Your task to perform on an android device: check data usage Image 0: 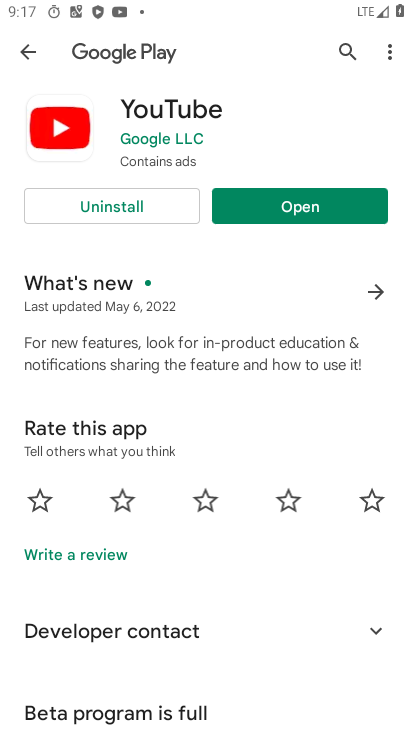
Step 0: press back button
Your task to perform on an android device: check data usage Image 1: 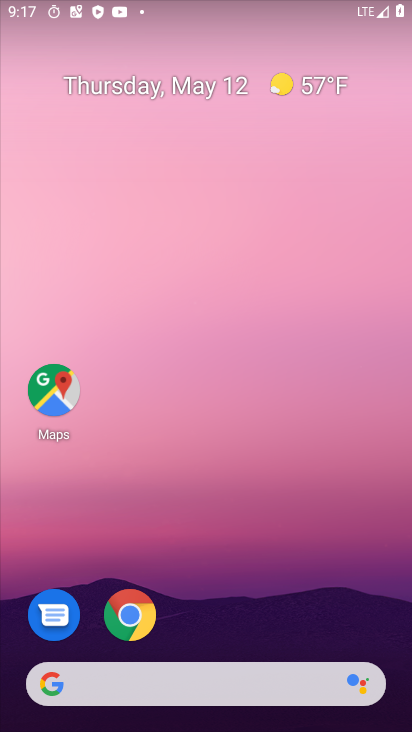
Step 1: drag from (357, 591) to (235, 82)
Your task to perform on an android device: check data usage Image 2: 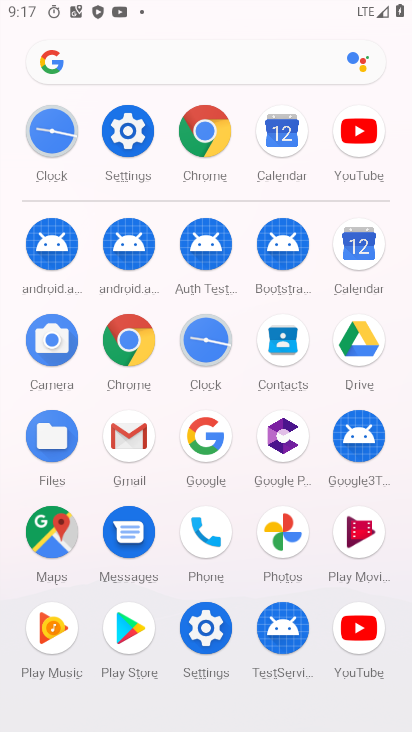
Step 2: click (205, 627)
Your task to perform on an android device: check data usage Image 3: 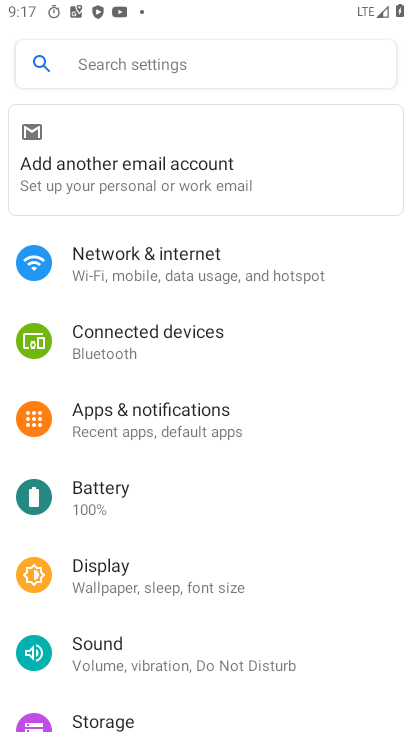
Step 3: click (223, 254)
Your task to perform on an android device: check data usage Image 4: 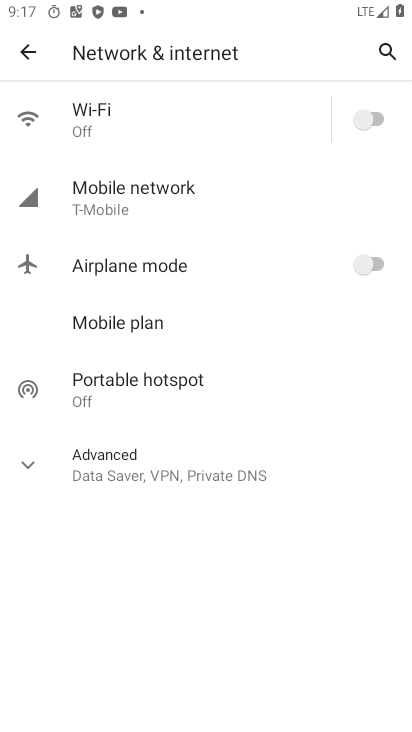
Step 4: click (147, 205)
Your task to perform on an android device: check data usage Image 5: 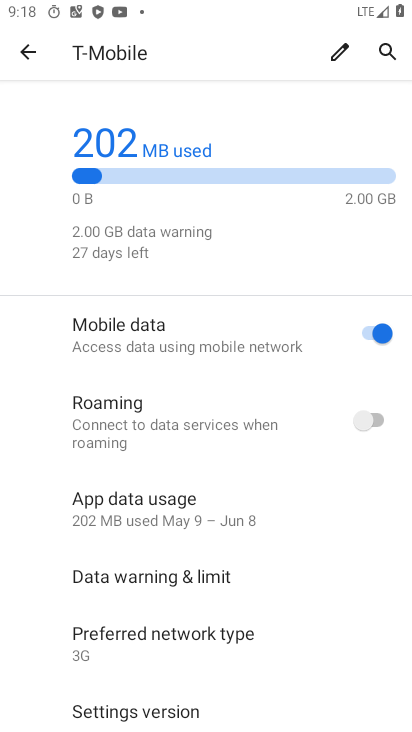
Step 5: drag from (237, 568) to (275, 201)
Your task to perform on an android device: check data usage Image 6: 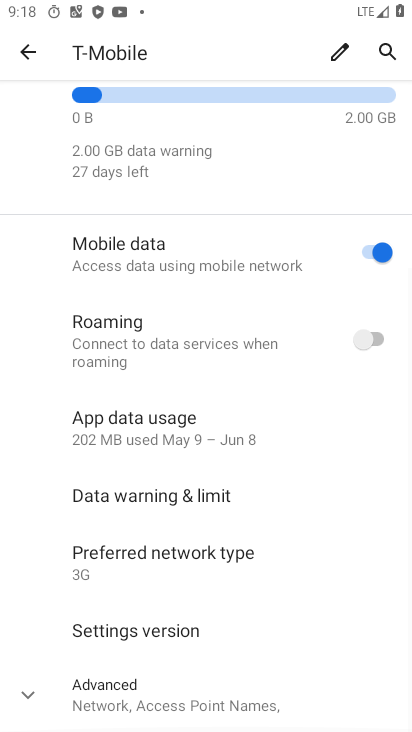
Step 6: drag from (270, 190) to (275, 579)
Your task to perform on an android device: check data usage Image 7: 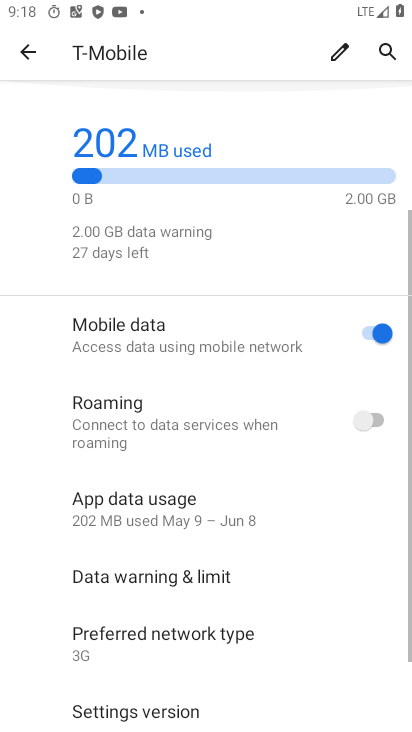
Step 7: drag from (230, 614) to (225, 159)
Your task to perform on an android device: check data usage Image 8: 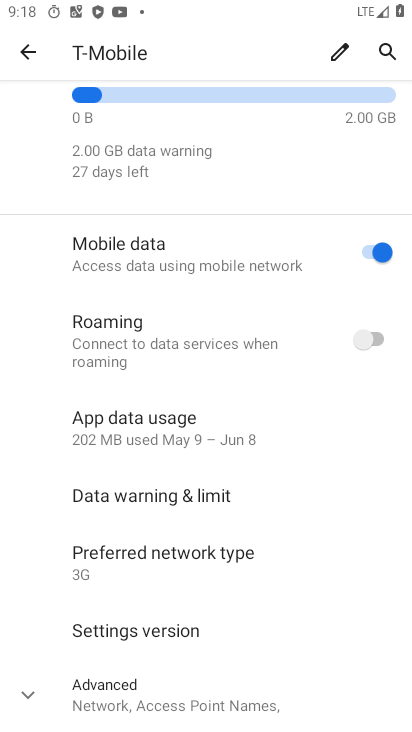
Step 8: click (25, 698)
Your task to perform on an android device: check data usage Image 9: 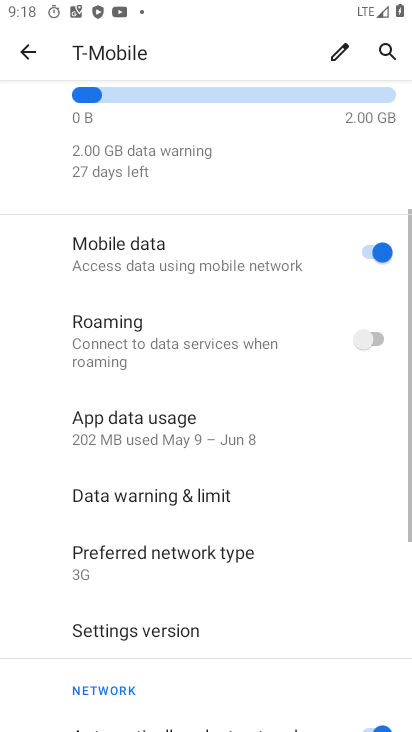
Step 9: task complete